Your task to perform on an android device: turn off sleep mode Image 0: 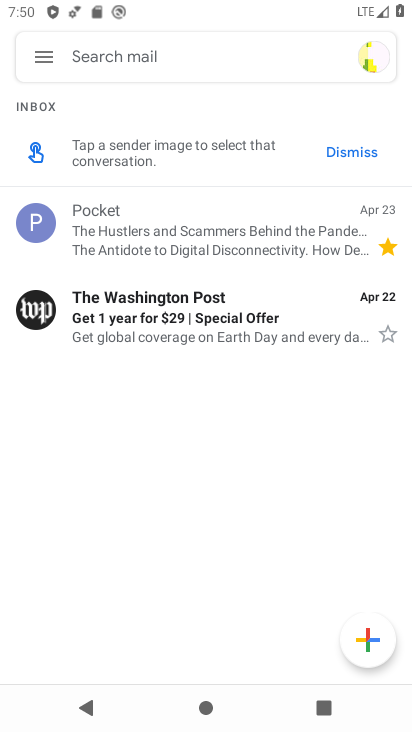
Step 0: press home button
Your task to perform on an android device: turn off sleep mode Image 1: 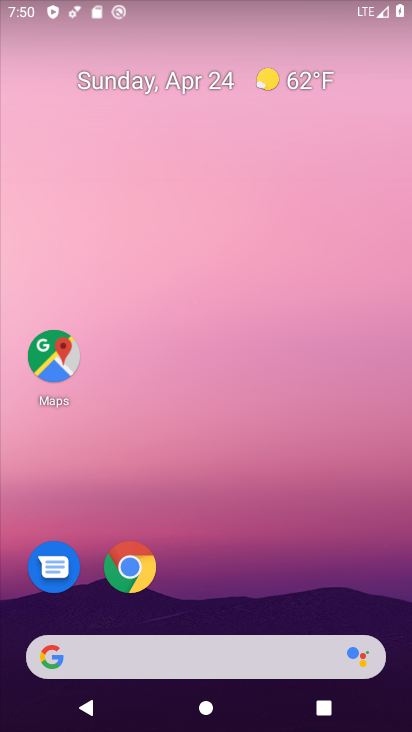
Step 1: drag from (232, 520) to (205, 122)
Your task to perform on an android device: turn off sleep mode Image 2: 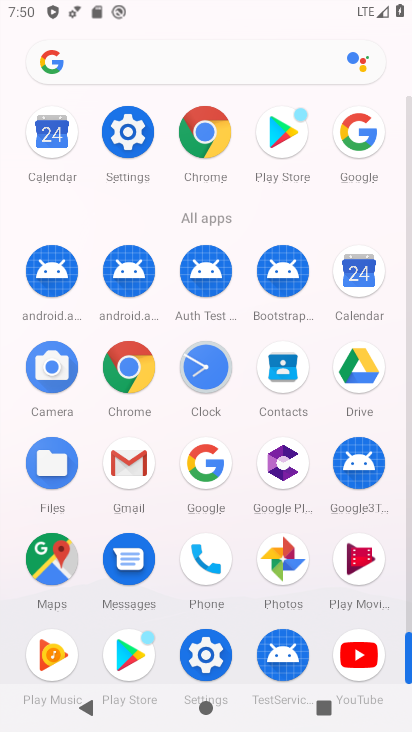
Step 2: click (131, 128)
Your task to perform on an android device: turn off sleep mode Image 3: 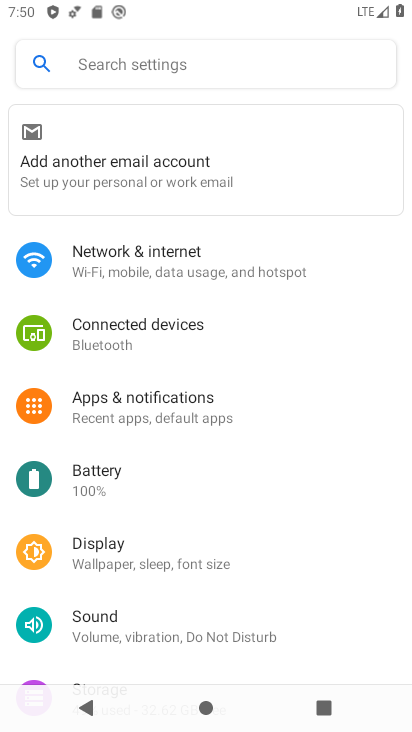
Step 3: click (156, 565)
Your task to perform on an android device: turn off sleep mode Image 4: 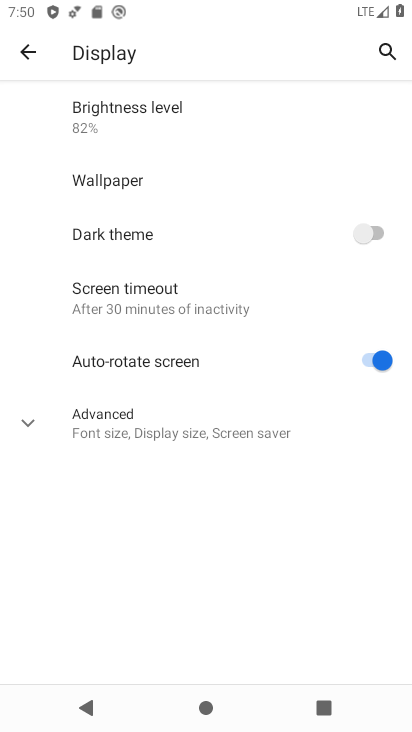
Step 4: click (126, 282)
Your task to perform on an android device: turn off sleep mode Image 5: 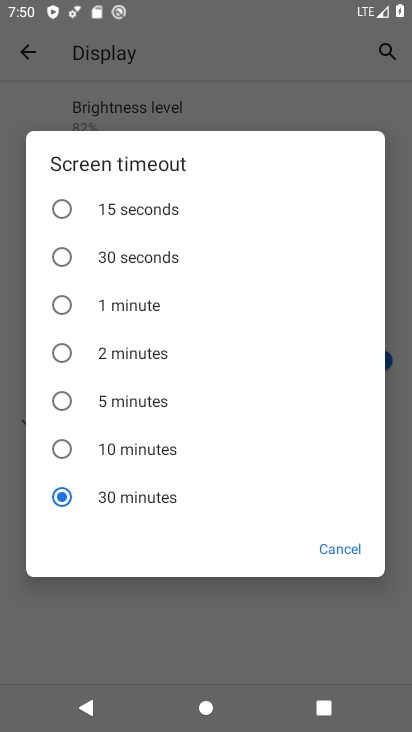
Step 5: click (335, 552)
Your task to perform on an android device: turn off sleep mode Image 6: 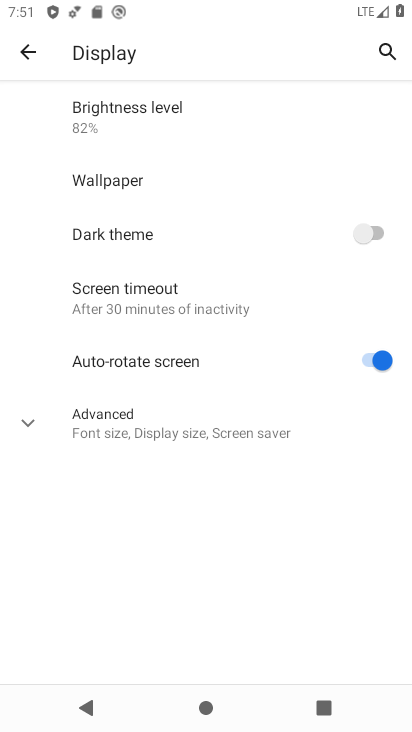
Step 6: click (30, 418)
Your task to perform on an android device: turn off sleep mode Image 7: 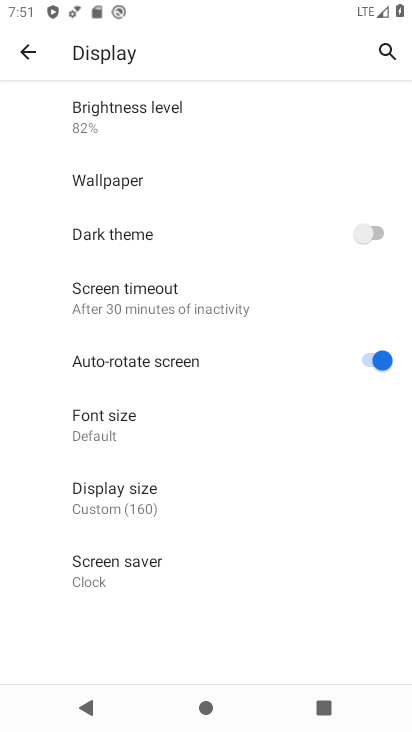
Step 7: task complete